Your task to perform on an android device: Go to Reddit.com Image 0: 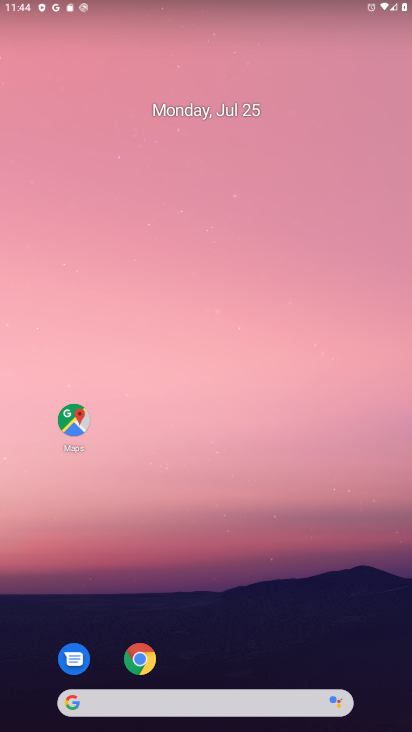
Step 0: click (139, 663)
Your task to perform on an android device: Go to Reddit.com Image 1: 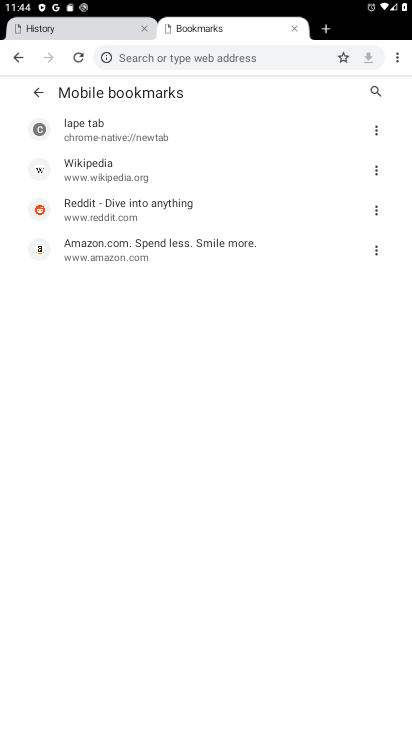
Step 1: click (399, 56)
Your task to perform on an android device: Go to Reddit.com Image 2: 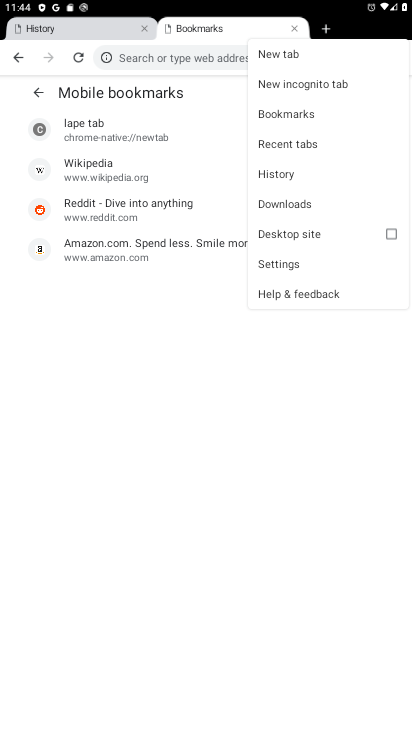
Step 2: click (269, 50)
Your task to perform on an android device: Go to Reddit.com Image 3: 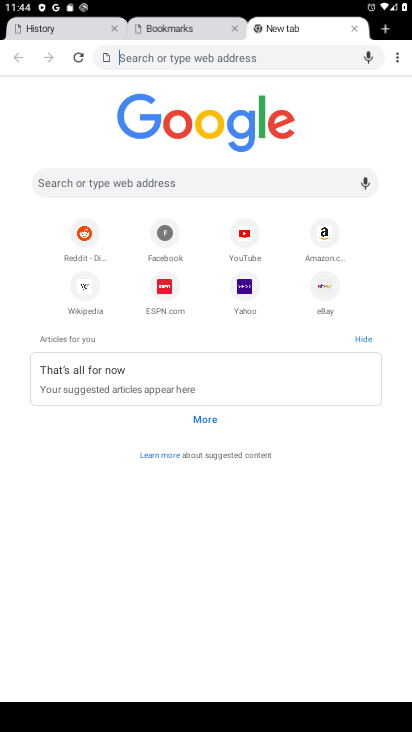
Step 3: click (80, 231)
Your task to perform on an android device: Go to Reddit.com Image 4: 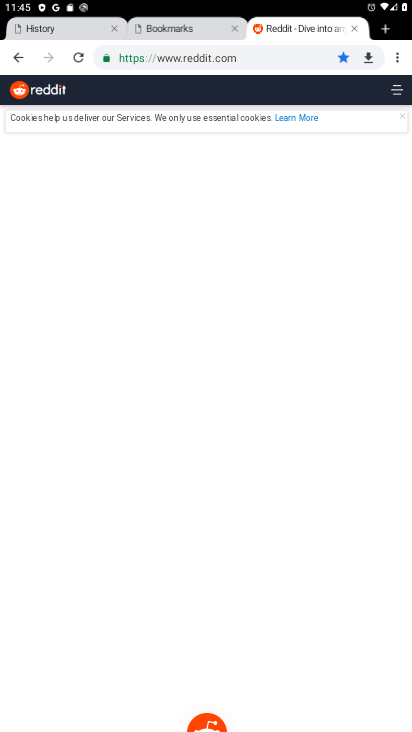
Step 4: task complete